Your task to perform on an android device: turn off priority inbox in the gmail app Image 0: 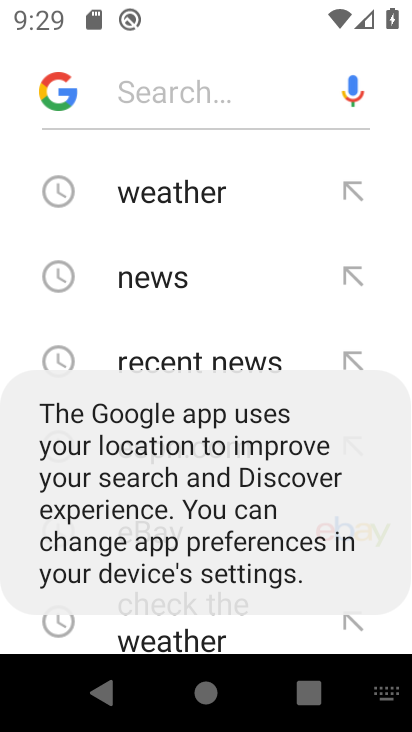
Step 0: press home button
Your task to perform on an android device: turn off priority inbox in the gmail app Image 1: 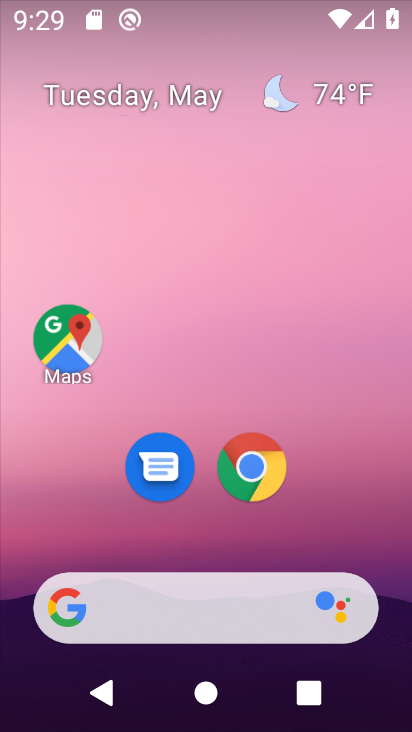
Step 1: drag from (360, 516) to (376, 195)
Your task to perform on an android device: turn off priority inbox in the gmail app Image 2: 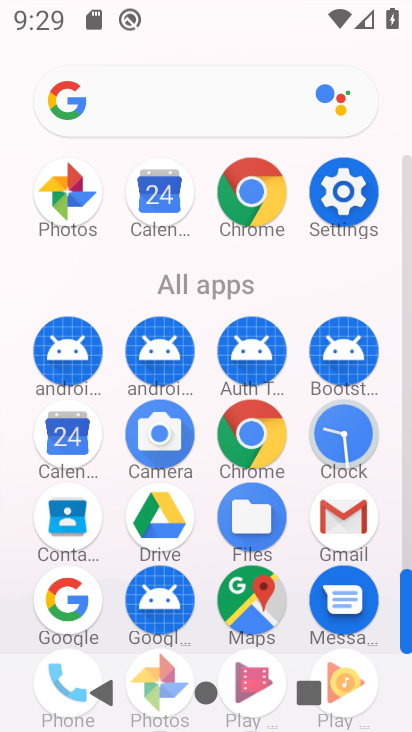
Step 2: click (335, 515)
Your task to perform on an android device: turn off priority inbox in the gmail app Image 3: 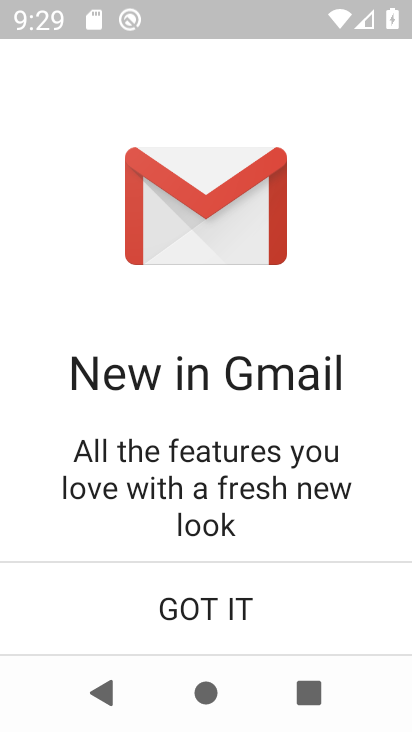
Step 3: click (251, 617)
Your task to perform on an android device: turn off priority inbox in the gmail app Image 4: 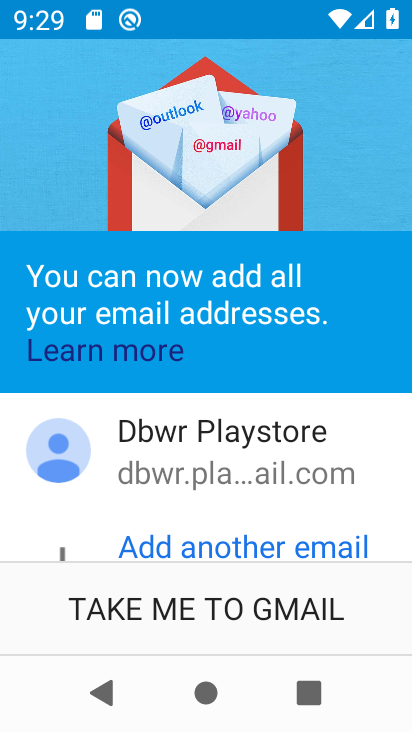
Step 4: click (255, 609)
Your task to perform on an android device: turn off priority inbox in the gmail app Image 5: 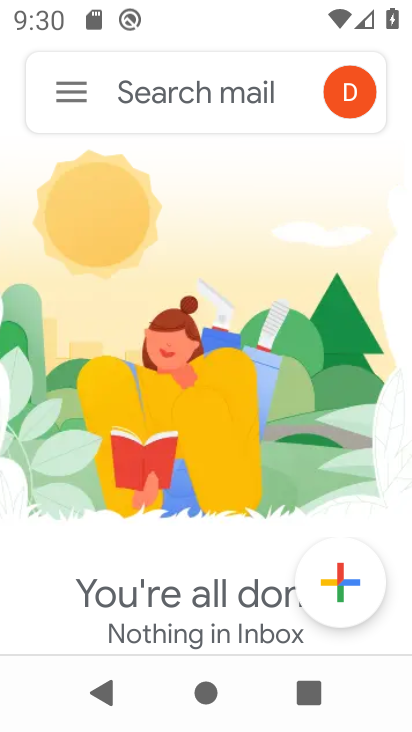
Step 5: click (70, 96)
Your task to perform on an android device: turn off priority inbox in the gmail app Image 6: 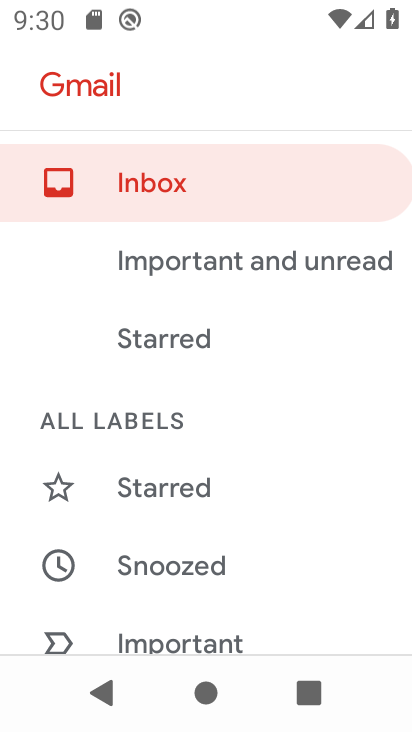
Step 6: drag from (269, 608) to (287, 209)
Your task to perform on an android device: turn off priority inbox in the gmail app Image 7: 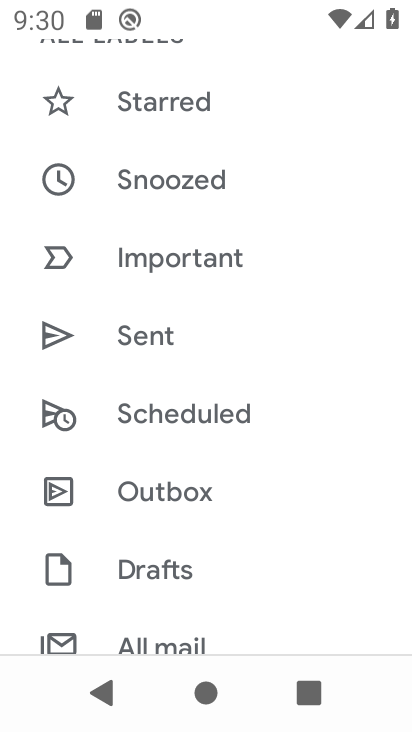
Step 7: drag from (256, 579) to (268, 161)
Your task to perform on an android device: turn off priority inbox in the gmail app Image 8: 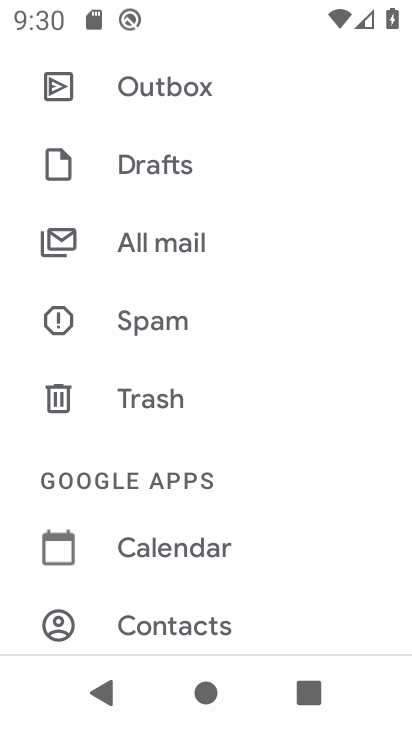
Step 8: drag from (264, 560) to (285, 172)
Your task to perform on an android device: turn off priority inbox in the gmail app Image 9: 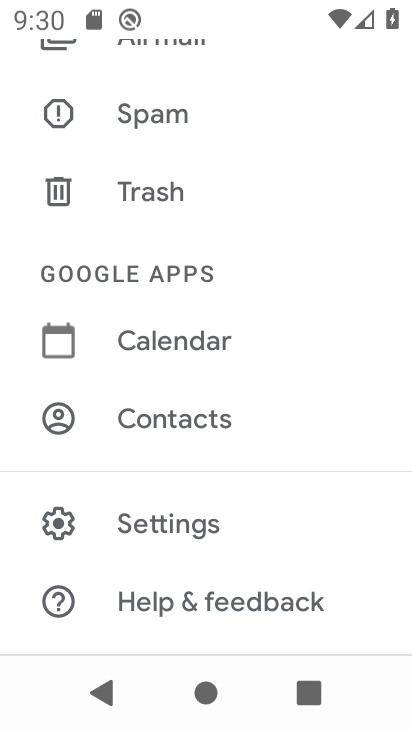
Step 9: click (212, 514)
Your task to perform on an android device: turn off priority inbox in the gmail app Image 10: 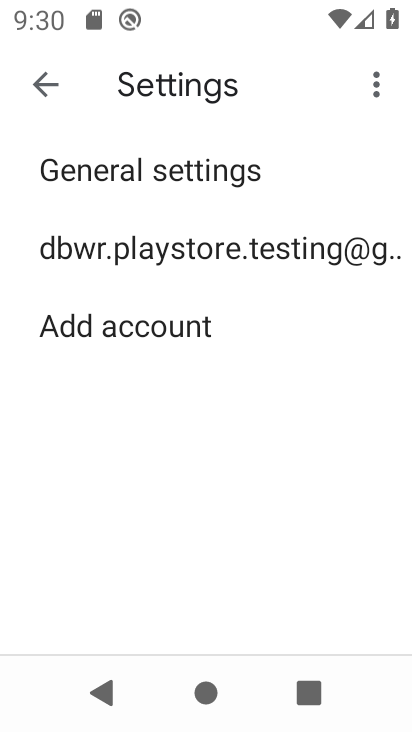
Step 10: click (207, 228)
Your task to perform on an android device: turn off priority inbox in the gmail app Image 11: 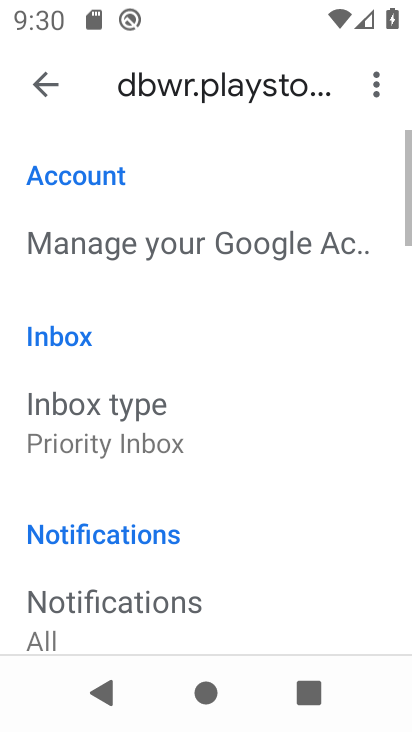
Step 11: drag from (253, 589) to (255, 239)
Your task to perform on an android device: turn off priority inbox in the gmail app Image 12: 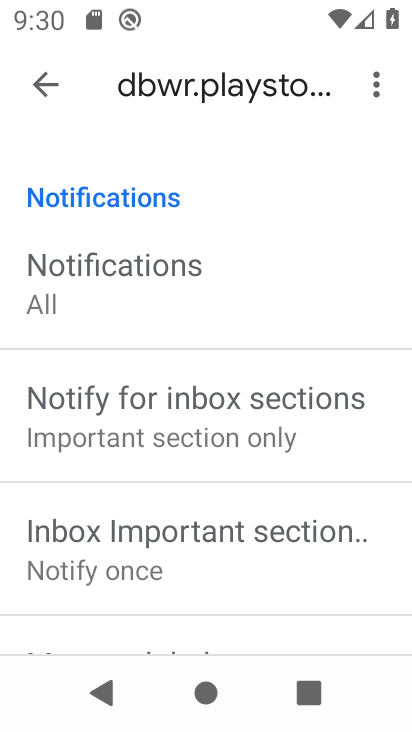
Step 12: drag from (188, 189) to (213, 538)
Your task to perform on an android device: turn off priority inbox in the gmail app Image 13: 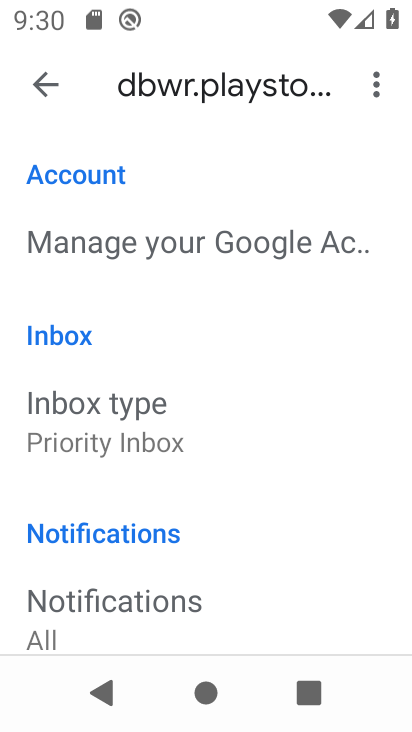
Step 13: click (86, 424)
Your task to perform on an android device: turn off priority inbox in the gmail app Image 14: 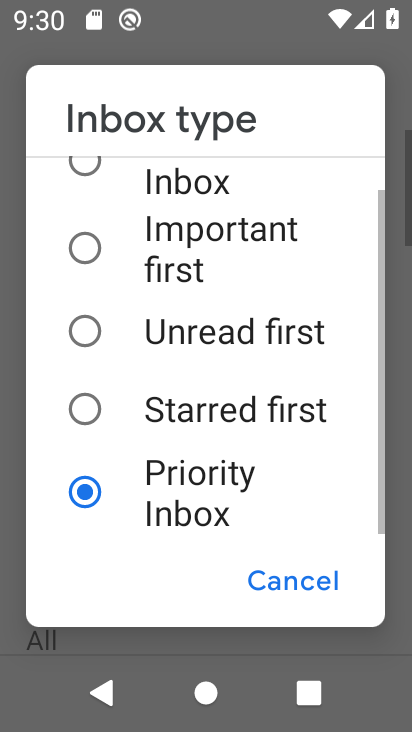
Step 14: drag from (164, 225) to (177, 594)
Your task to perform on an android device: turn off priority inbox in the gmail app Image 15: 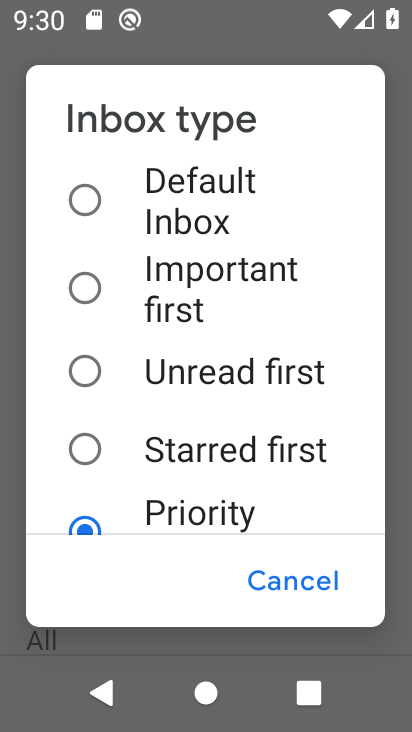
Step 15: click (82, 203)
Your task to perform on an android device: turn off priority inbox in the gmail app Image 16: 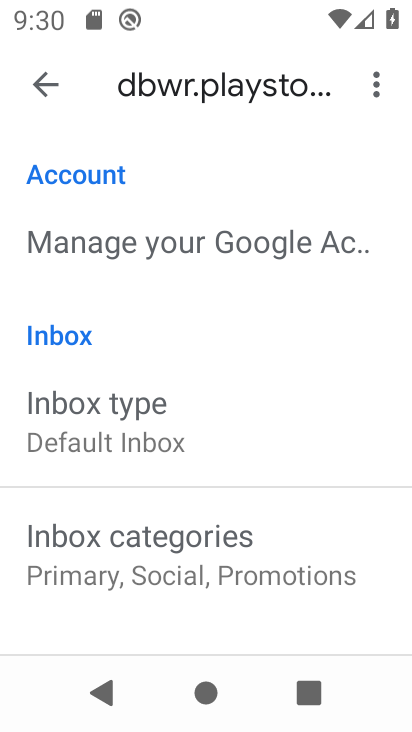
Step 16: task complete